Your task to perform on an android device: turn on sleep mode Image 0: 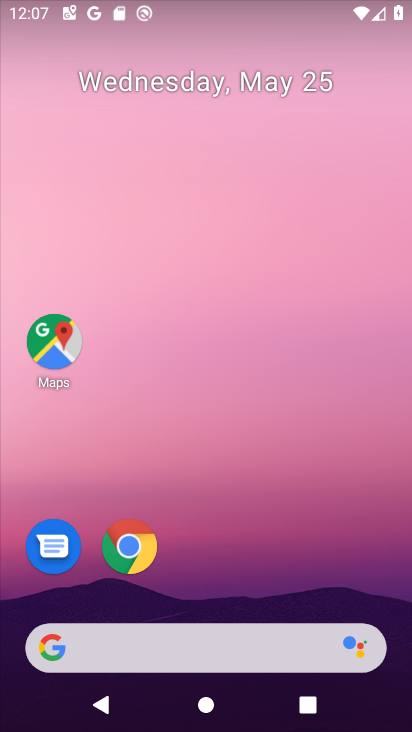
Step 0: drag from (255, 604) to (281, 65)
Your task to perform on an android device: turn on sleep mode Image 1: 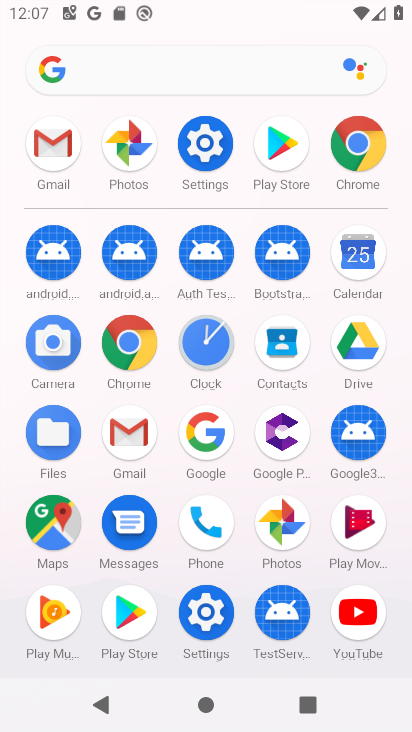
Step 1: click (194, 152)
Your task to perform on an android device: turn on sleep mode Image 2: 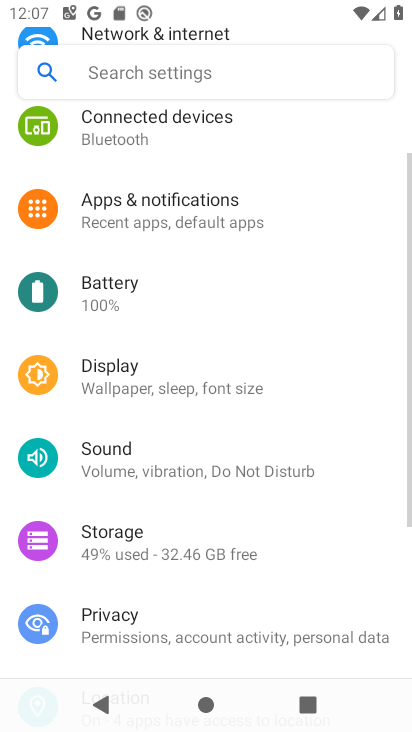
Step 2: click (193, 69)
Your task to perform on an android device: turn on sleep mode Image 3: 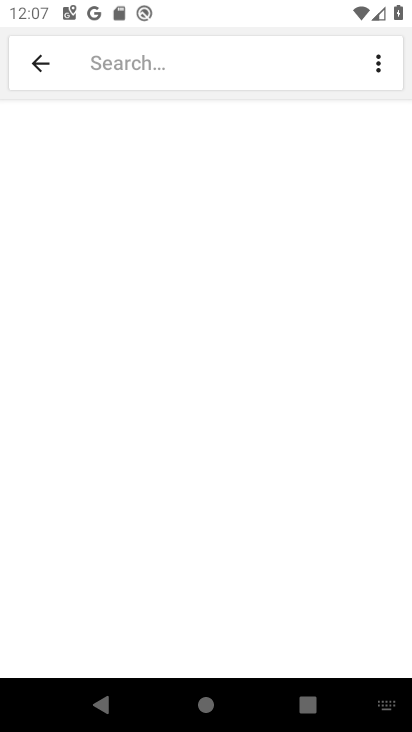
Step 3: type "sleep mode"
Your task to perform on an android device: turn on sleep mode Image 4: 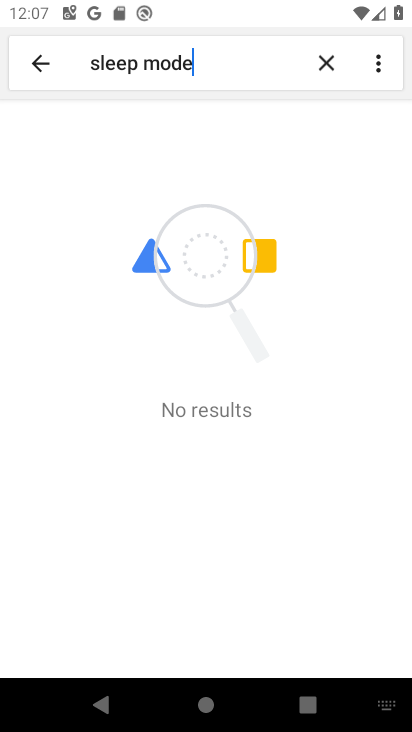
Step 4: task complete